Your task to perform on an android device: Open Yahoo.com Image 0: 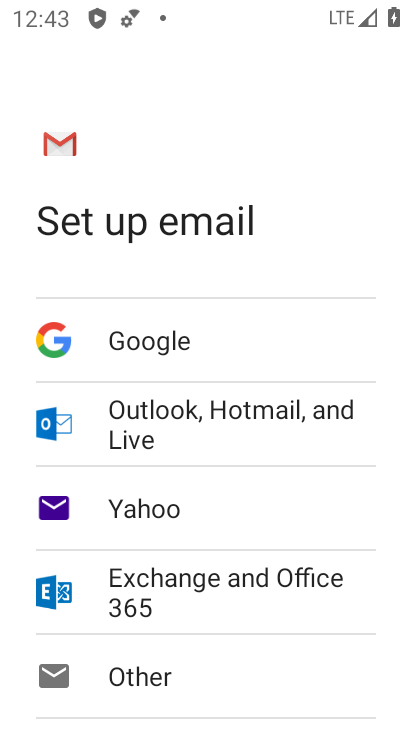
Step 0: press home button
Your task to perform on an android device: Open Yahoo.com Image 1: 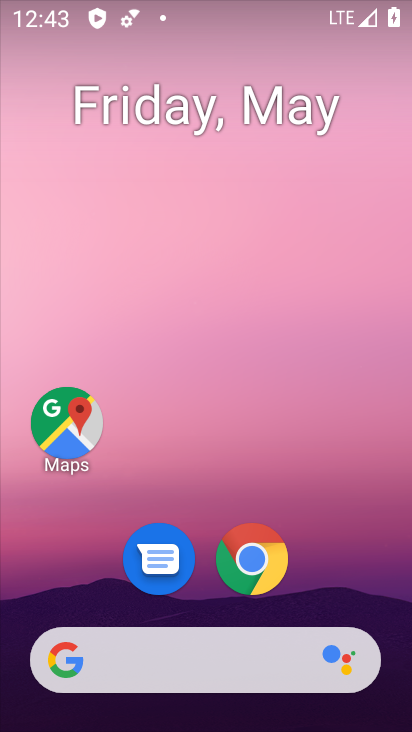
Step 1: click (257, 562)
Your task to perform on an android device: Open Yahoo.com Image 2: 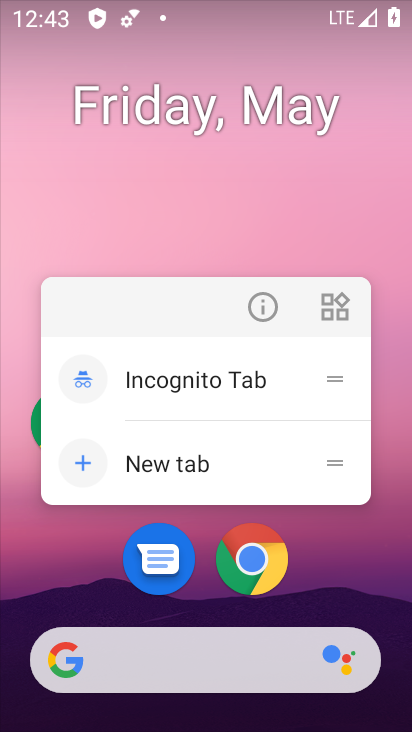
Step 2: click (257, 562)
Your task to perform on an android device: Open Yahoo.com Image 3: 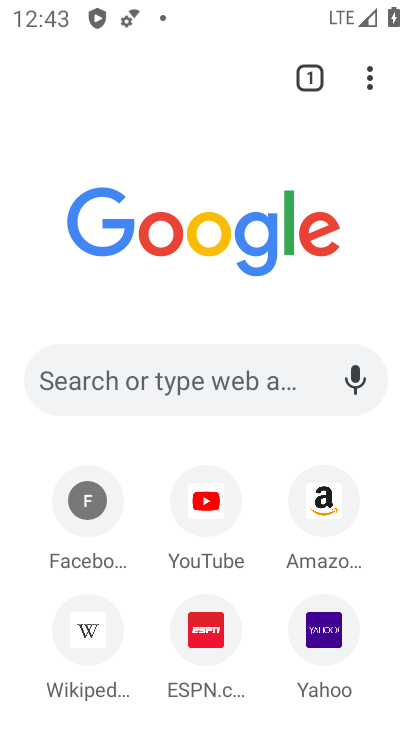
Step 3: drag from (273, 445) to (369, 140)
Your task to perform on an android device: Open Yahoo.com Image 4: 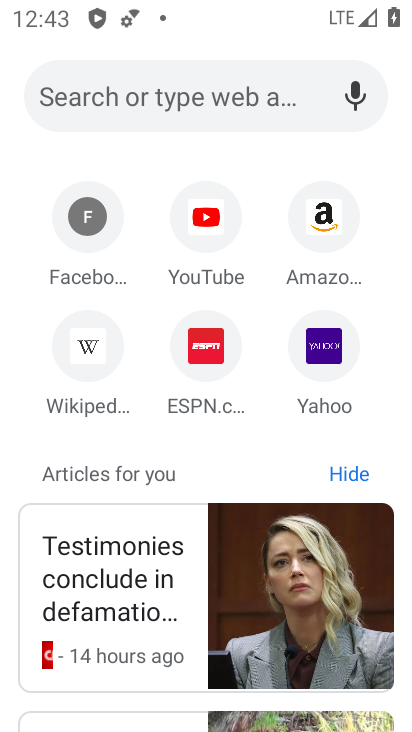
Step 4: click (337, 345)
Your task to perform on an android device: Open Yahoo.com Image 5: 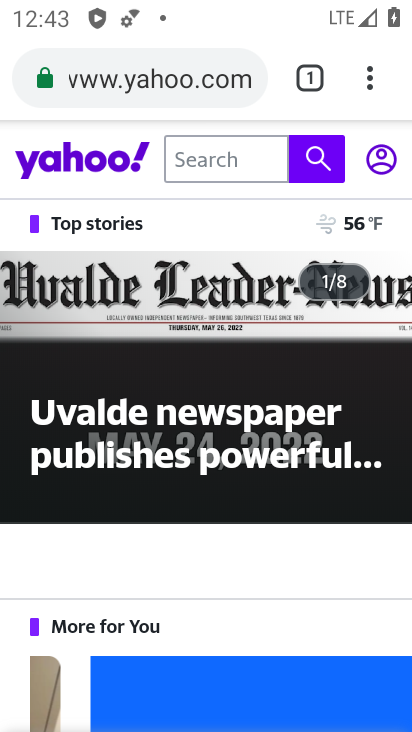
Step 5: task complete